Your task to perform on an android device: turn off data saver in the chrome app Image 0: 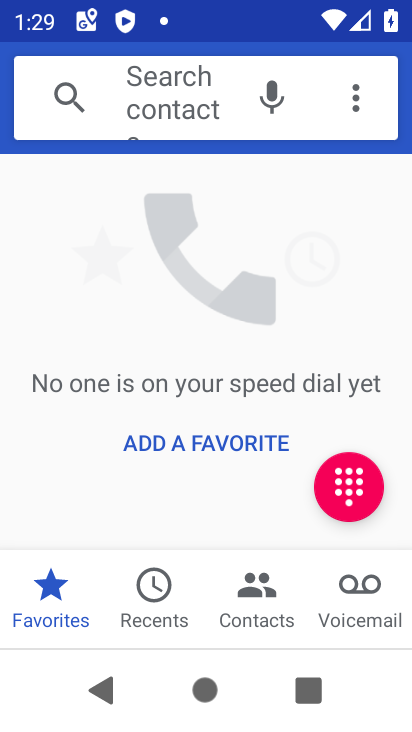
Step 0: press home button
Your task to perform on an android device: turn off data saver in the chrome app Image 1: 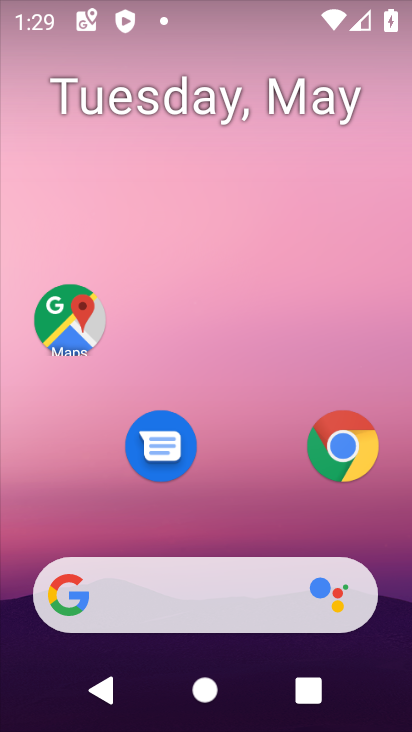
Step 1: click (361, 436)
Your task to perform on an android device: turn off data saver in the chrome app Image 2: 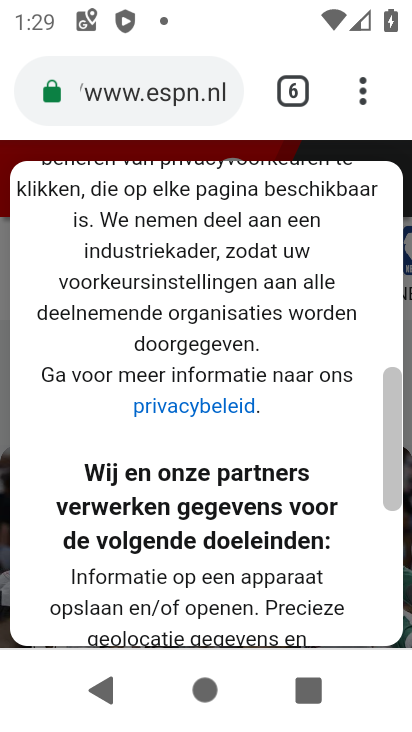
Step 2: click (361, 101)
Your task to perform on an android device: turn off data saver in the chrome app Image 3: 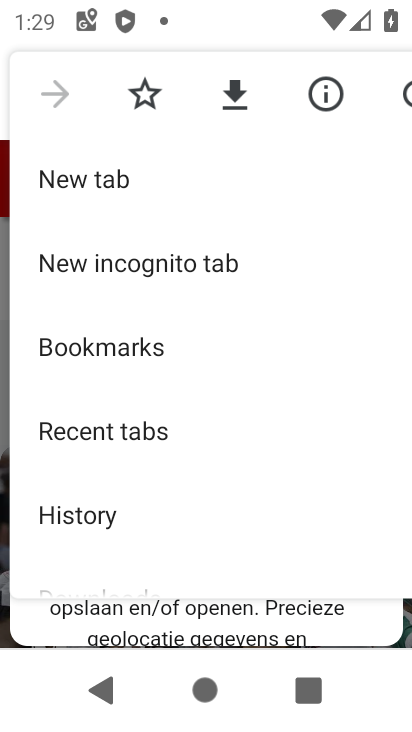
Step 3: drag from (238, 515) to (195, 112)
Your task to perform on an android device: turn off data saver in the chrome app Image 4: 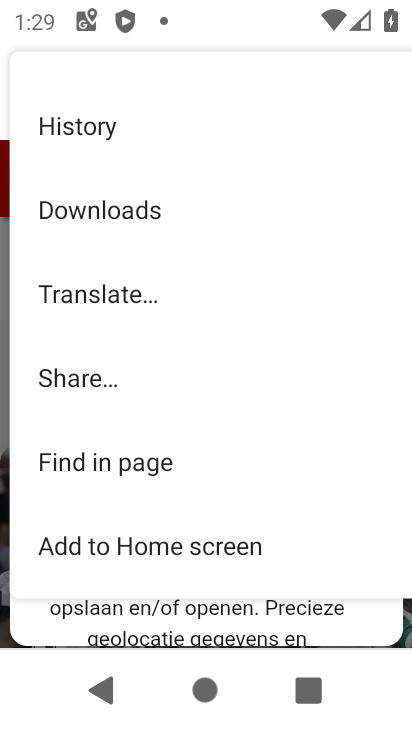
Step 4: drag from (150, 547) to (106, 120)
Your task to perform on an android device: turn off data saver in the chrome app Image 5: 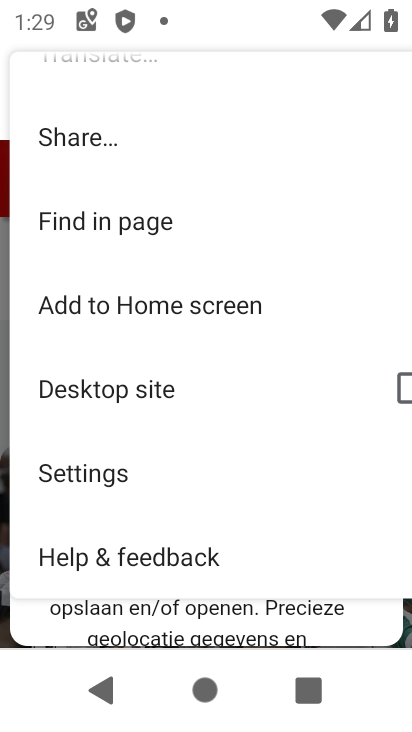
Step 5: click (106, 468)
Your task to perform on an android device: turn off data saver in the chrome app Image 6: 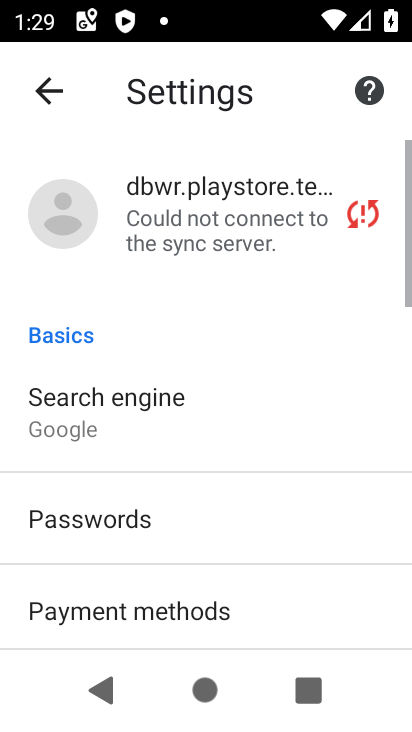
Step 6: drag from (133, 608) to (121, 116)
Your task to perform on an android device: turn off data saver in the chrome app Image 7: 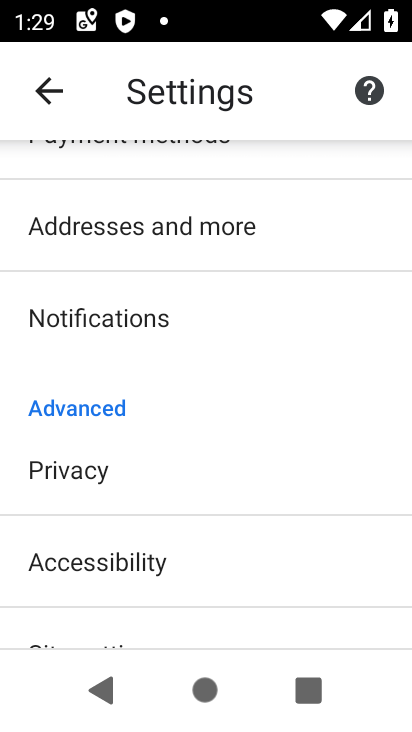
Step 7: drag from (155, 570) to (110, 232)
Your task to perform on an android device: turn off data saver in the chrome app Image 8: 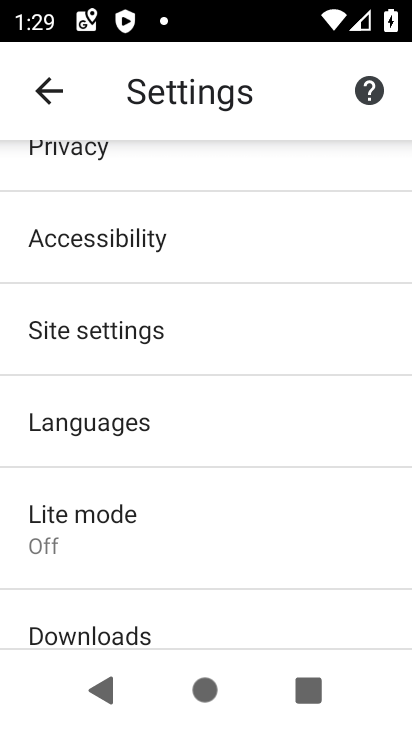
Step 8: click (153, 506)
Your task to perform on an android device: turn off data saver in the chrome app Image 9: 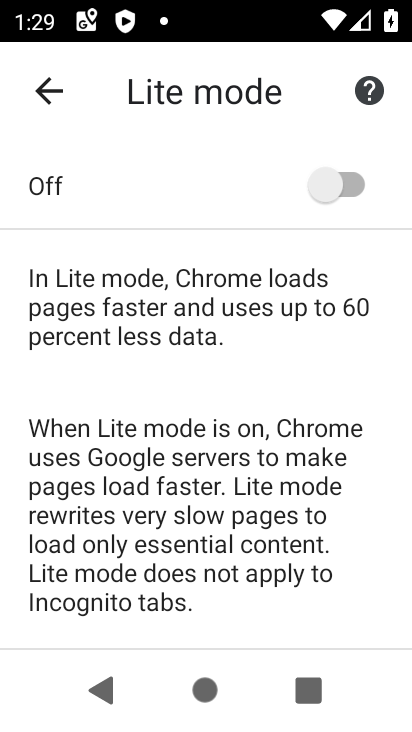
Step 9: task complete